Your task to perform on an android device: Open Yahoo.com Image 0: 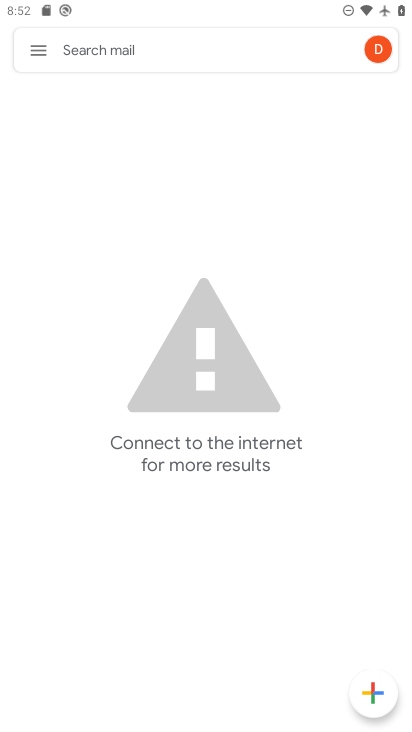
Step 0: press home button
Your task to perform on an android device: Open Yahoo.com Image 1: 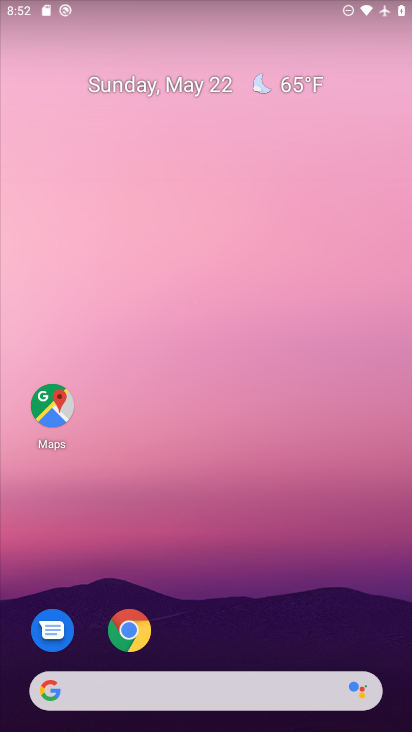
Step 1: click (134, 623)
Your task to perform on an android device: Open Yahoo.com Image 2: 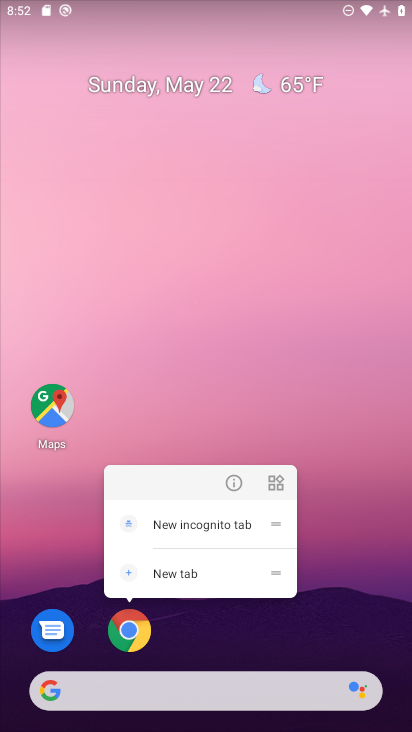
Step 2: click (130, 627)
Your task to perform on an android device: Open Yahoo.com Image 3: 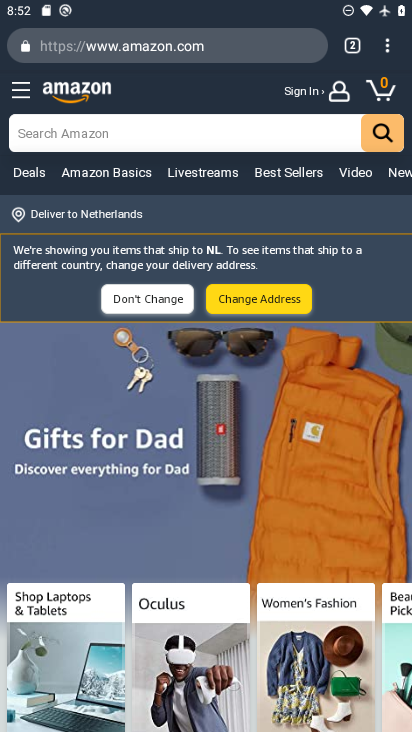
Step 3: drag from (387, 49) to (230, 95)
Your task to perform on an android device: Open Yahoo.com Image 4: 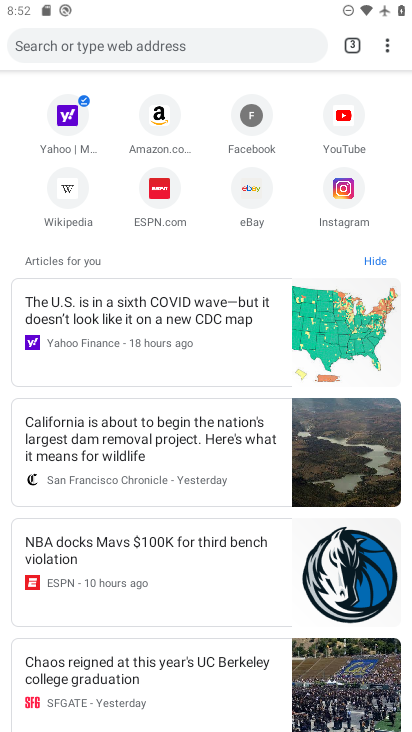
Step 4: click (70, 120)
Your task to perform on an android device: Open Yahoo.com Image 5: 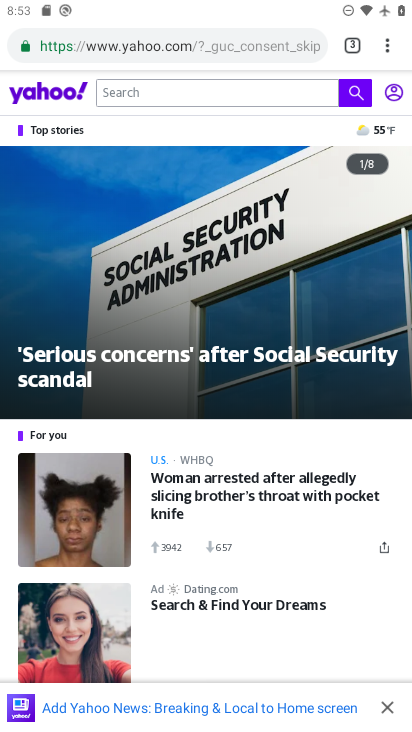
Step 5: task complete